Your task to perform on an android device: Open display settings Image 0: 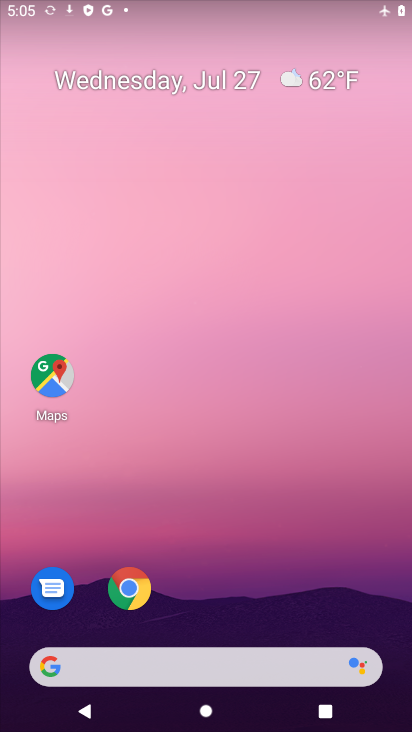
Step 0: click (171, 298)
Your task to perform on an android device: Open display settings Image 1: 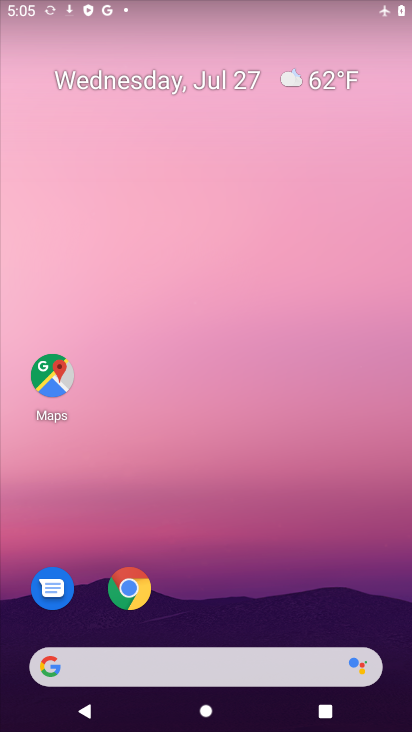
Step 1: click (209, 94)
Your task to perform on an android device: Open display settings Image 2: 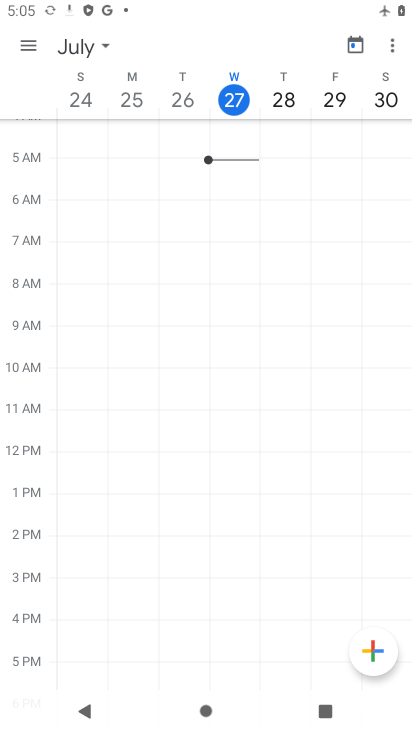
Step 2: press home button
Your task to perform on an android device: Open display settings Image 3: 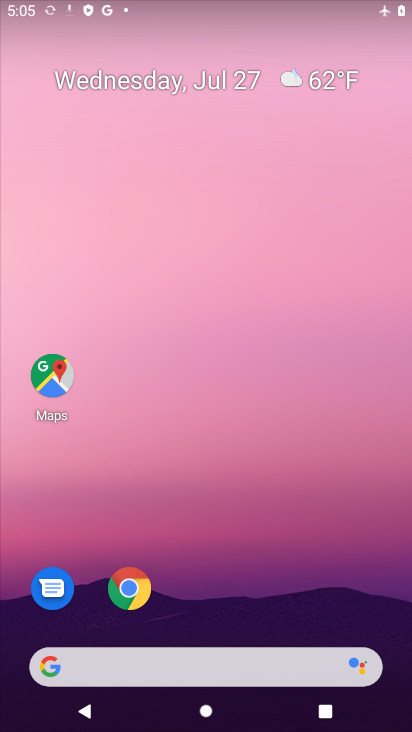
Step 3: drag from (218, 567) to (181, 138)
Your task to perform on an android device: Open display settings Image 4: 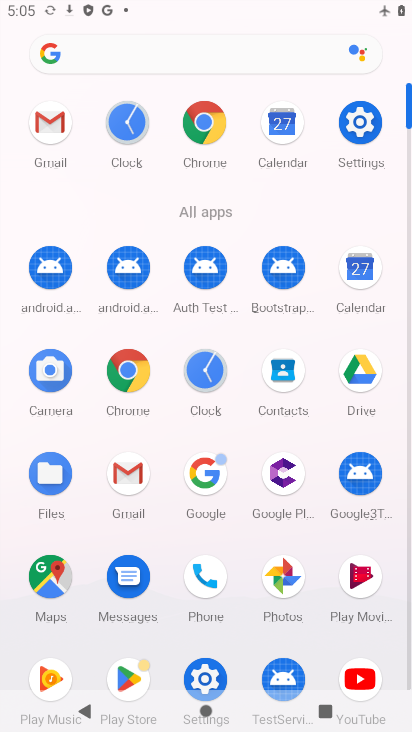
Step 4: click (355, 129)
Your task to perform on an android device: Open display settings Image 5: 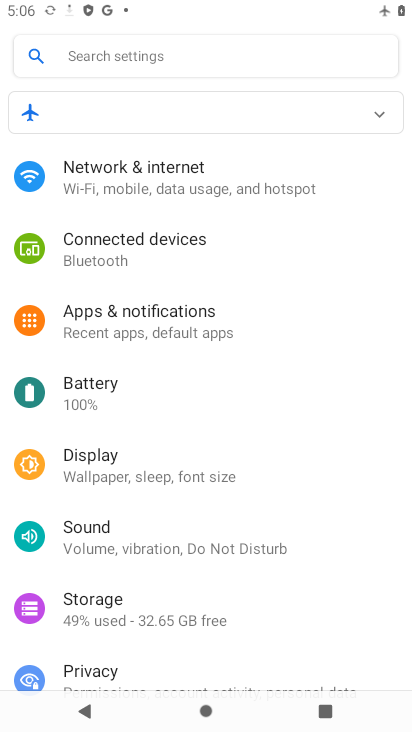
Step 5: click (75, 471)
Your task to perform on an android device: Open display settings Image 6: 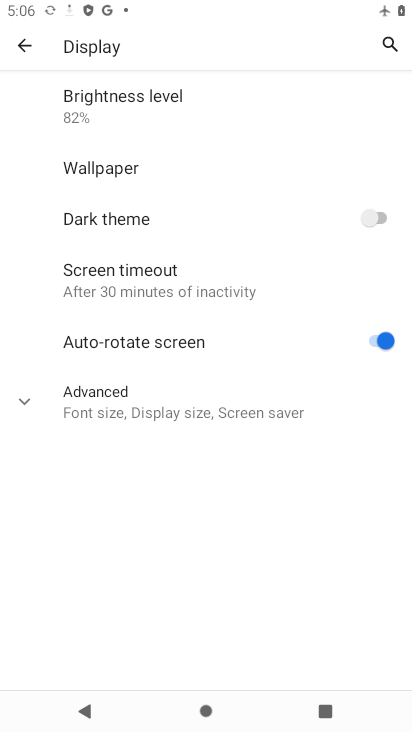
Step 6: task complete